Your task to perform on an android device: Search for coffee table on Crate & Barrel Image 0: 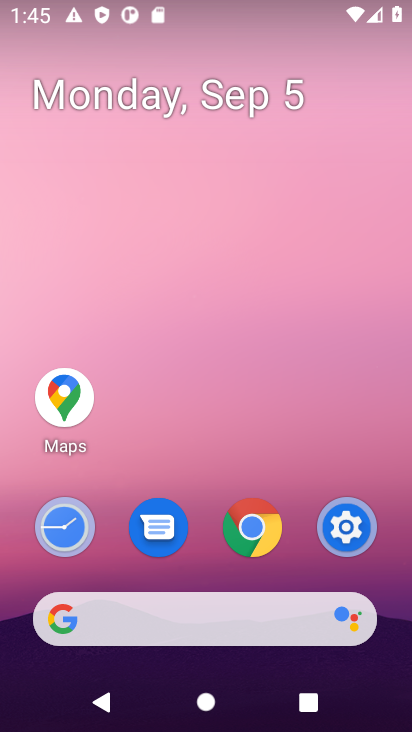
Step 0: click (242, 512)
Your task to perform on an android device: Search for coffee table on Crate & Barrel Image 1: 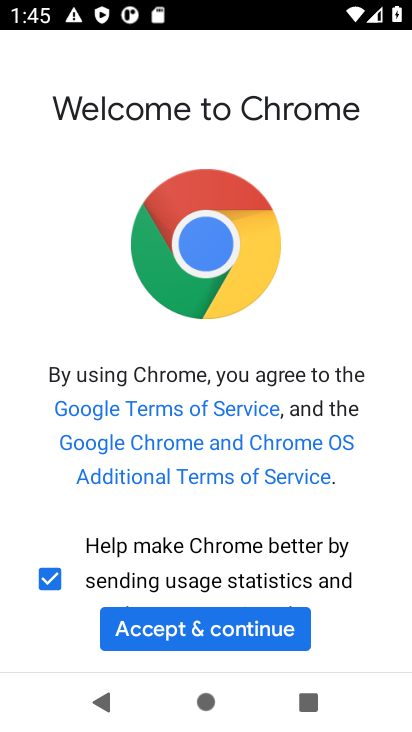
Step 1: click (227, 635)
Your task to perform on an android device: Search for coffee table on Crate & Barrel Image 2: 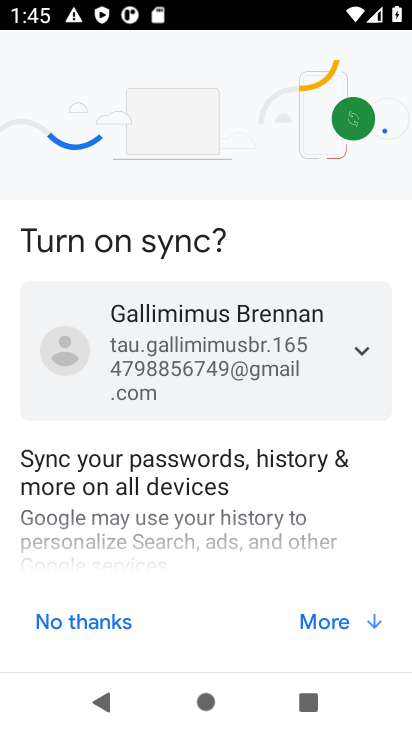
Step 2: click (309, 622)
Your task to perform on an android device: Search for coffee table on Crate & Barrel Image 3: 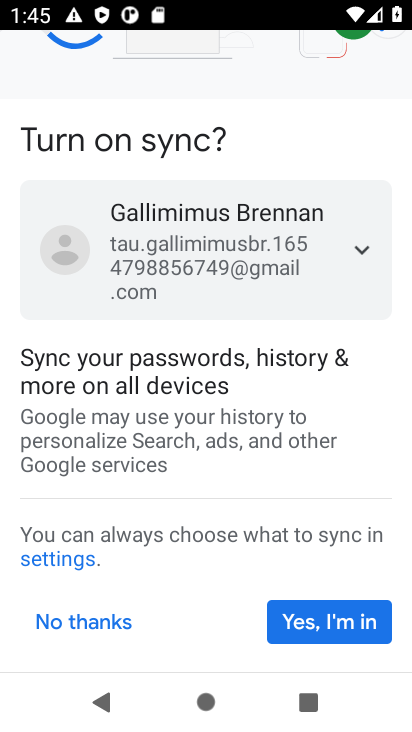
Step 3: click (309, 622)
Your task to perform on an android device: Search for coffee table on Crate & Barrel Image 4: 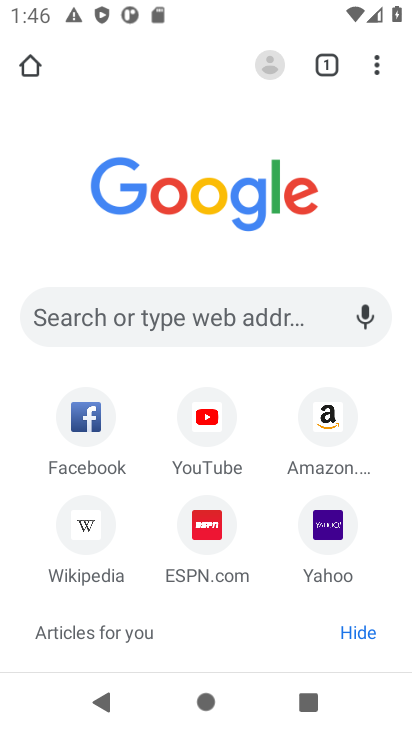
Step 4: click (149, 309)
Your task to perform on an android device: Search for coffee table on Crate & Barrel Image 5: 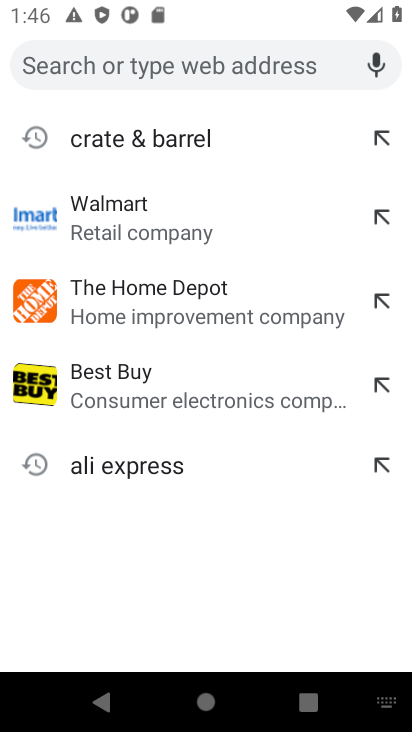
Step 5: type "crate and barrel"
Your task to perform on an android device: Search for coffee table on Crate & Barrel Image 6: 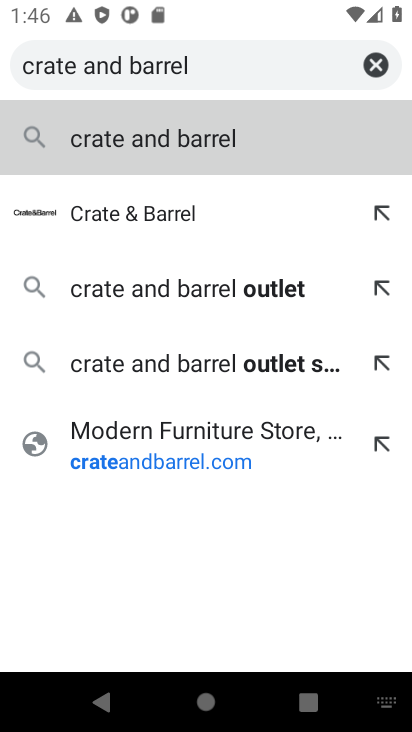
Step 6: click (180, 141)
Your task to perform on an android device: Search for coffee table on Crate & Barrel Image 7: 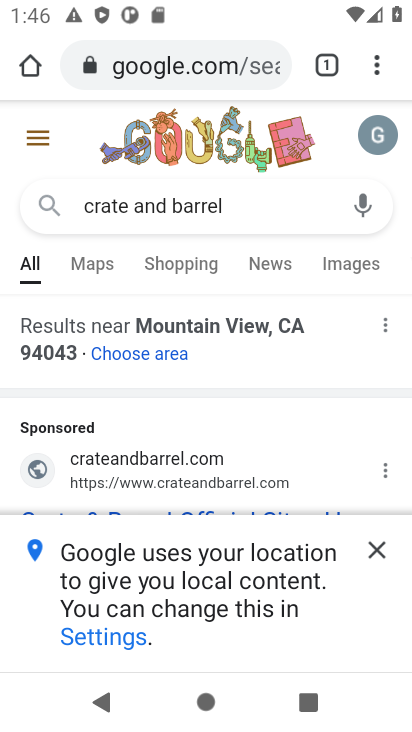
Step 7: click (372, 536)
Your task to perform on an android device: Search for coffee table on Crate & Barrel Image 8: 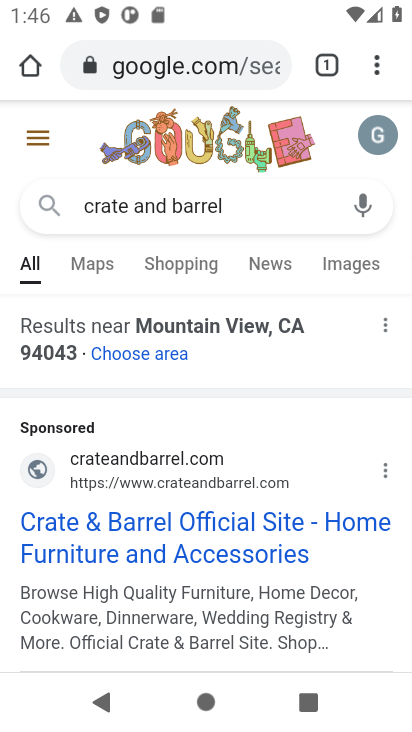
Step 8: click (198, 536)
Your task to perform on an android device: Search for coffee table on Crate & Barrel Image 9: 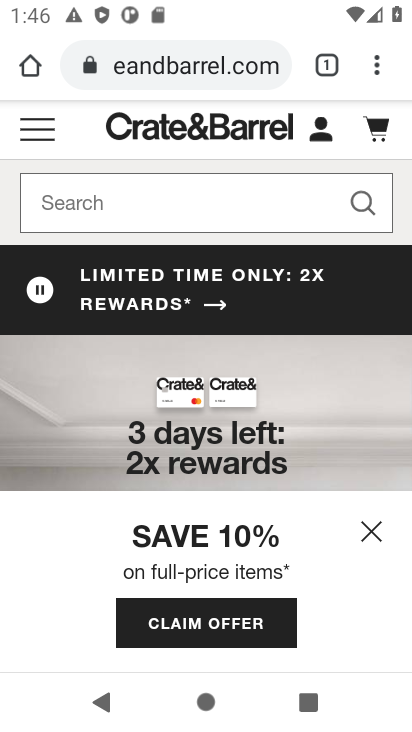
Step 9: click (219, 210)
Your task to perform on an android device: Search for coffee table on Crate & Barrel Image 10: 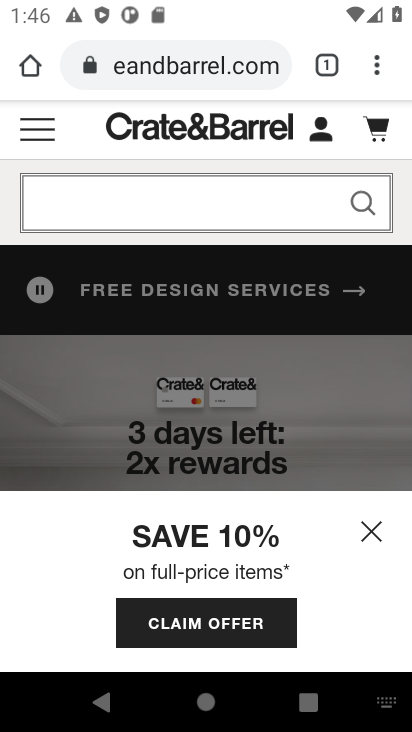
Step 10: type "coffee table"
Your task to perform on an android device: Search for coffee table on Crate & Barrel Image 11: 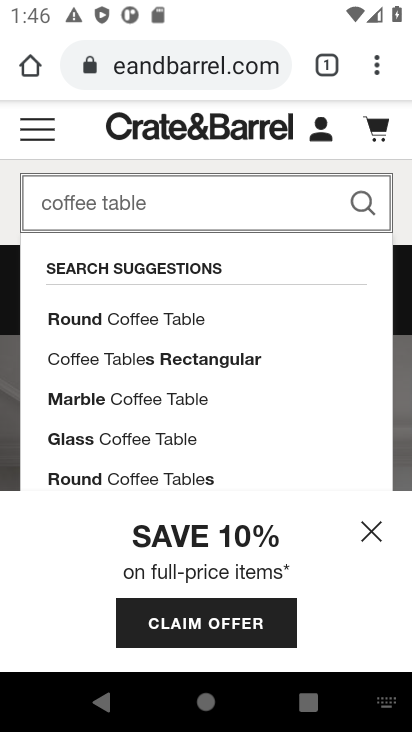
Step 11: click (360, 198)
Your task to perform on an android device: Search for coffee table on Crate & Barrel Image 12: 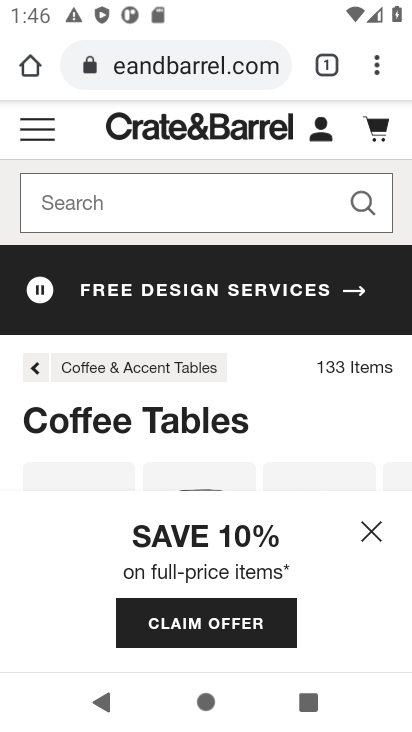
Step 12: click (362, 534)
Your task to perform on an android device: Search for coffee table on Crate & Barrel Image 13: 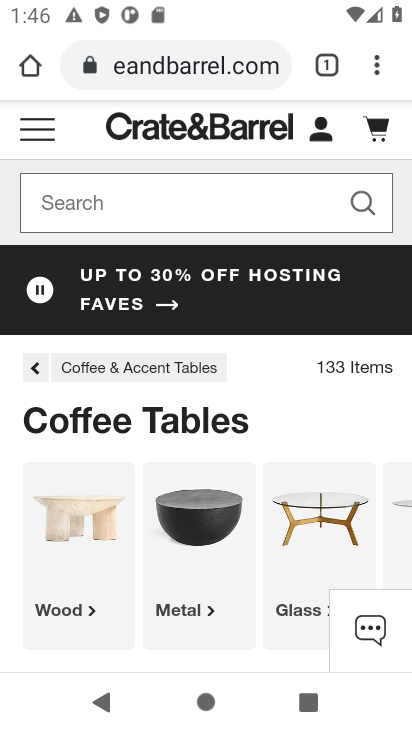
Step 13: task complete